Your task to perform on an android device: Go to Maps Image 0: 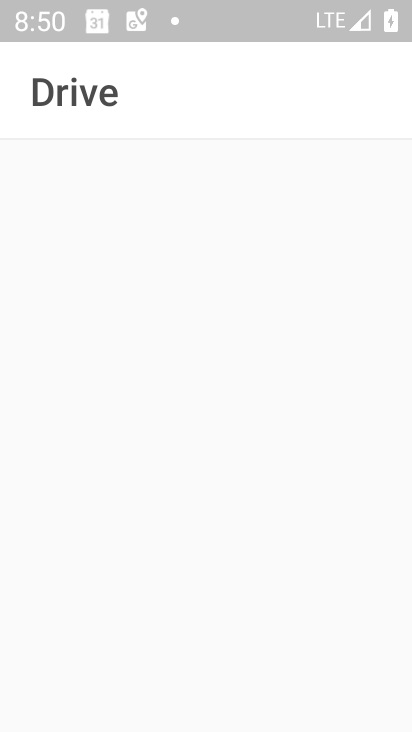
Step 0: press home button
Your task to perform on an android device: Go to Maps Image 1: 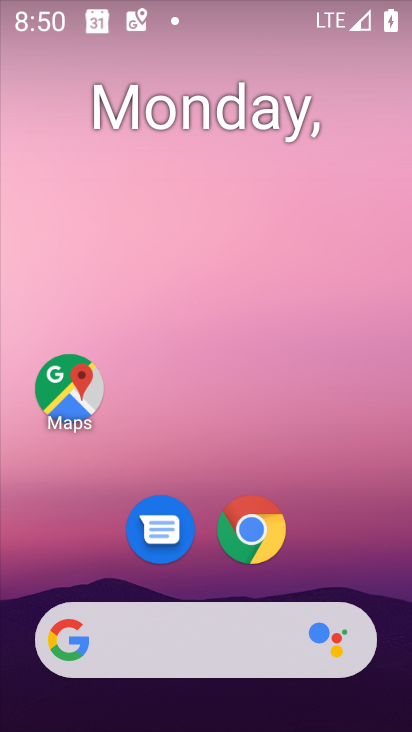
Step 1: click (57, 392)
Your task to perform on an android device: Go to Maps Image 2: 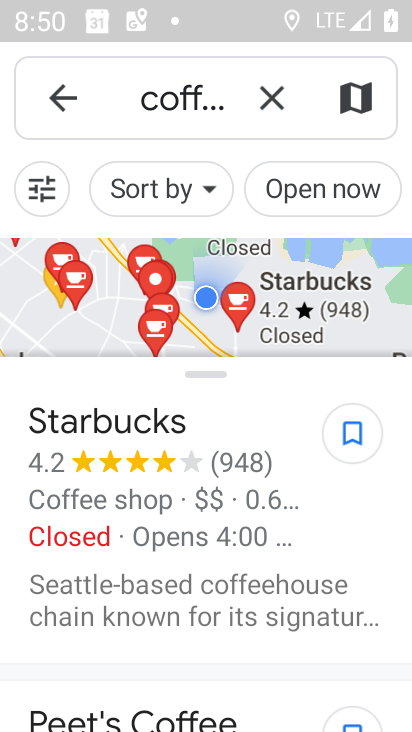
Step 2: task complete